Your task to perform on an android device: toggle javascript in the chrome app Image 0: 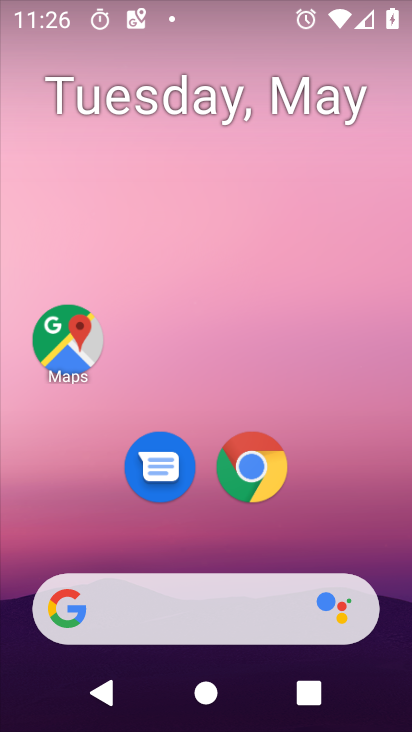
Step 0: drag from (379, 545) to (286, 66)
Your task to perform on an android device: toggle javascript in the chrome app Image 1: 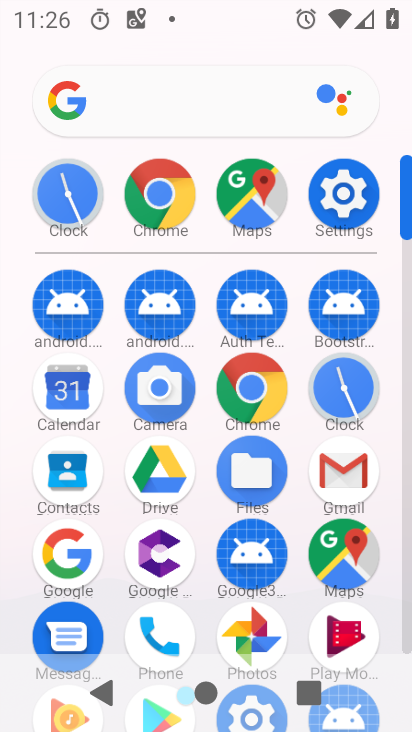
Step 1: drag from (6, 516) to (20, 224)
Your task to perform on an android device: toggle javascript in the chrome app Image 2: 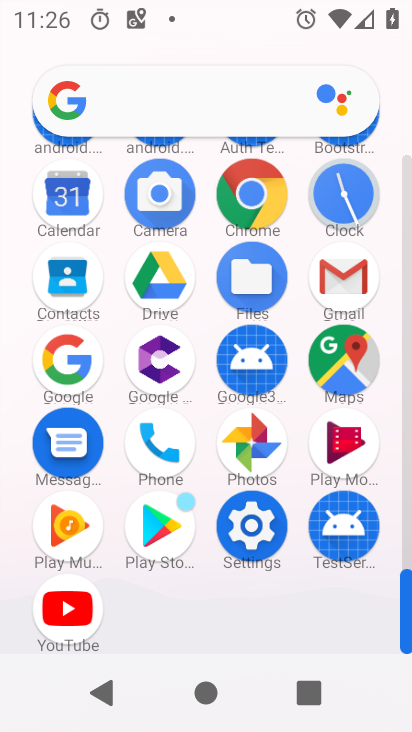
Step 2: click (256, 191)
Your task to perform on an android device: toggle javascript in the chrome app Image 3: 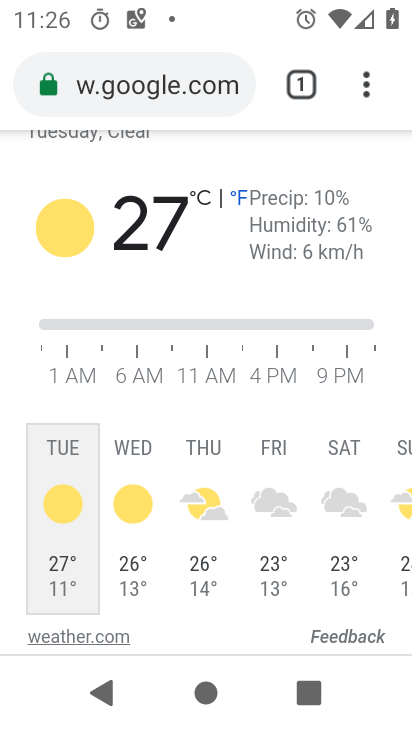
Step 3: drag from (359, 78) to (152, 501)
Your task to perform on an android device: toggle javascript in the chrome app Image 4: 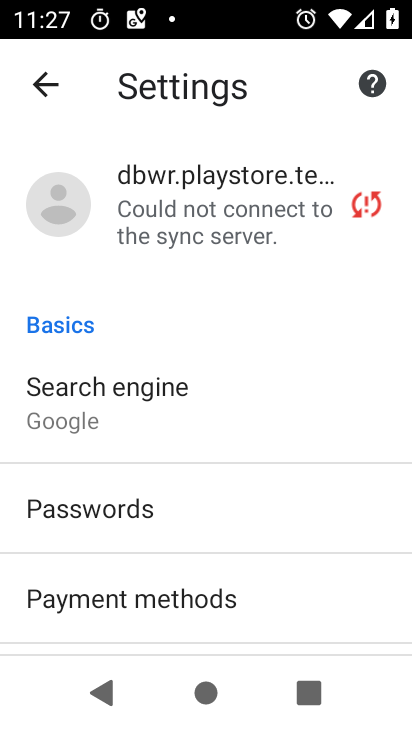
Step 4: drag from (333, 529) to (299, 153)
Your task to perform on an android device: toggle javascript in the chrome app Image 5: 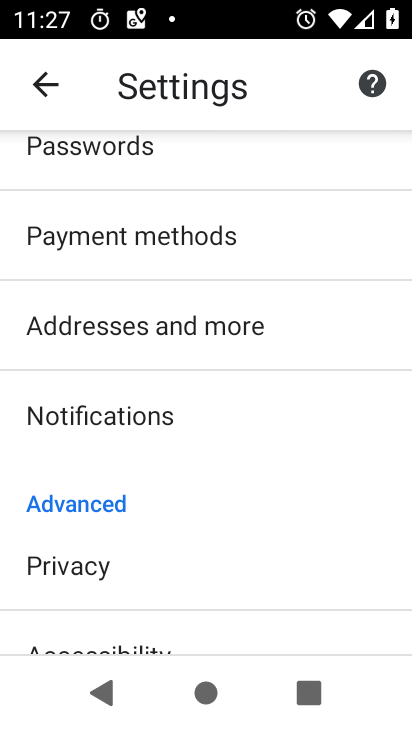
Step 5: drag from (251, 453) to (266, 230)
Your task to perform on an android device: toggle javascript in the chrome app Image 6: 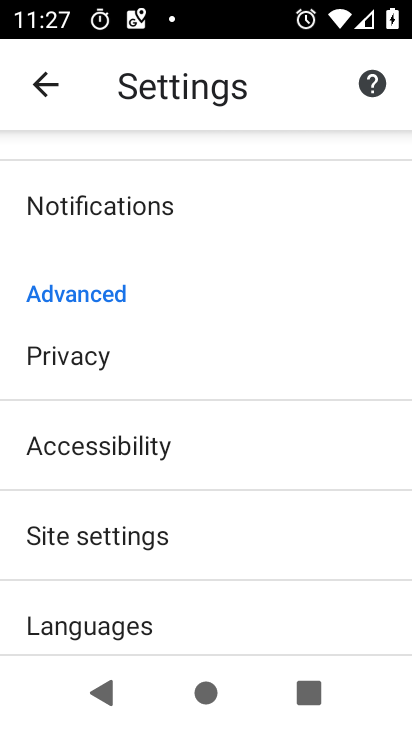
Step 6: click (154, 530)
Your task to perform on an android device: toggle javascript in the chrome app Image 7: 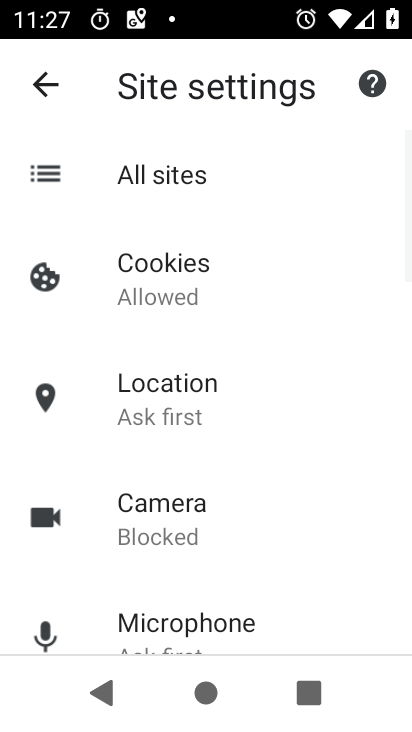
Step 7: drag from (228, 551) to (239, 221)
Your task to perform on an android device: toggle javascript in the chrome app Image 8: 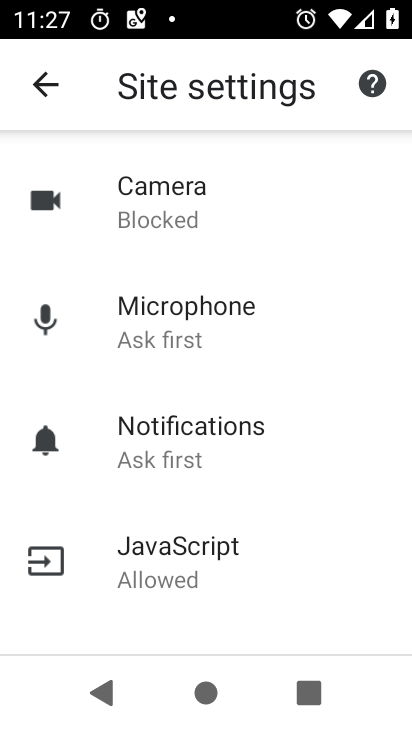
Step 8: click (211, 558)
Your task to perform on an android device: toggle javascript in the chrome app Image 9: 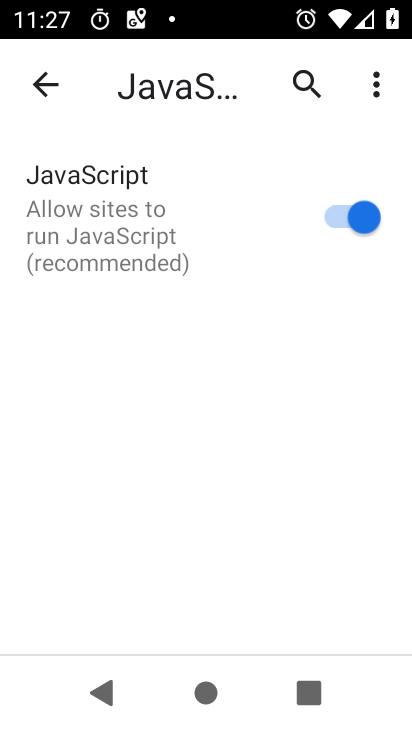
Step 9: click (343, 216)
Your task to perform on an android device: toggle javascript in the chrome app Image 10: 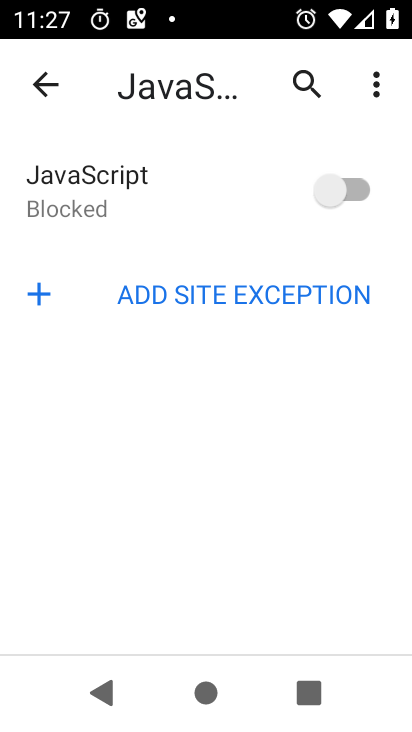
Step 10: task complete